Your task to perform on an android device: change keyboard looks Image 0: 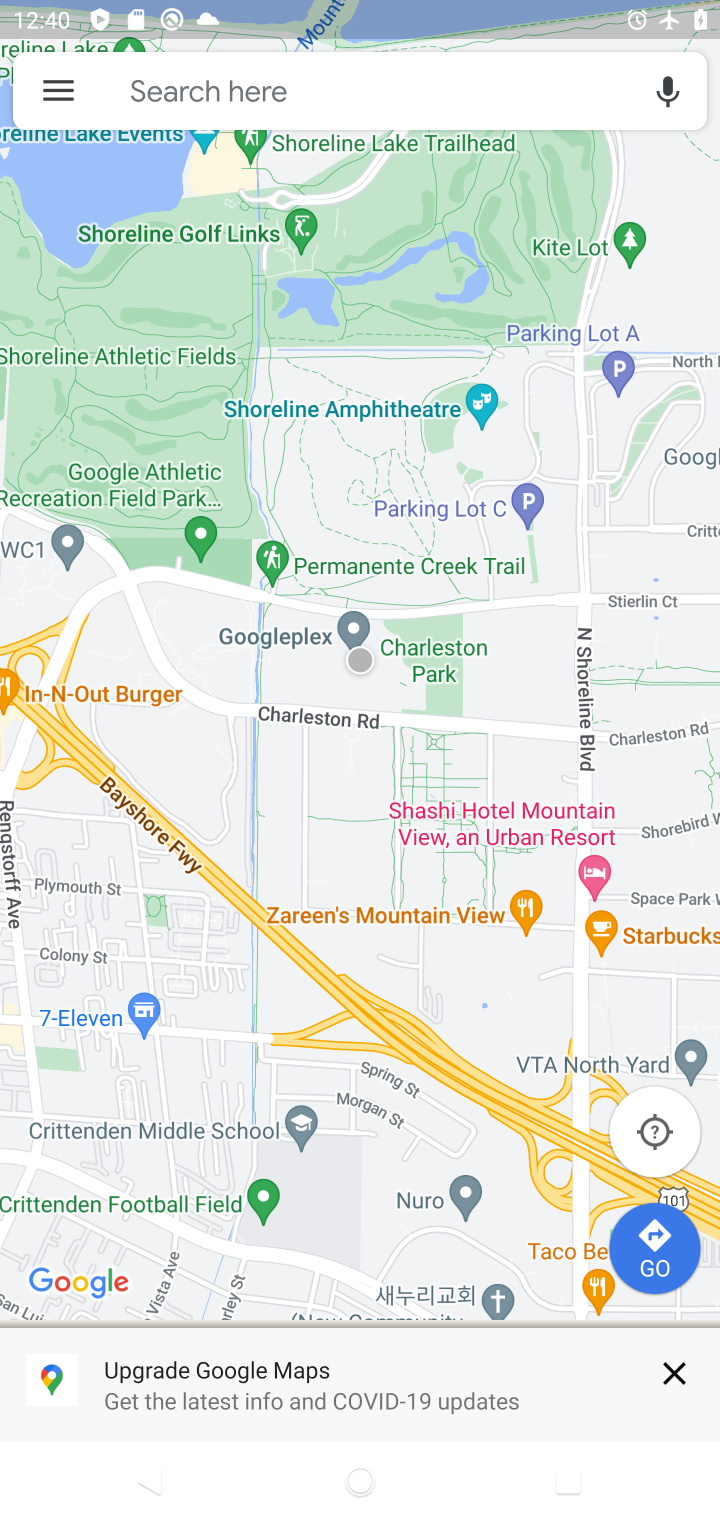
Step 0: press home button
Your task to perform on an android device: change keyboard looks Image 1: 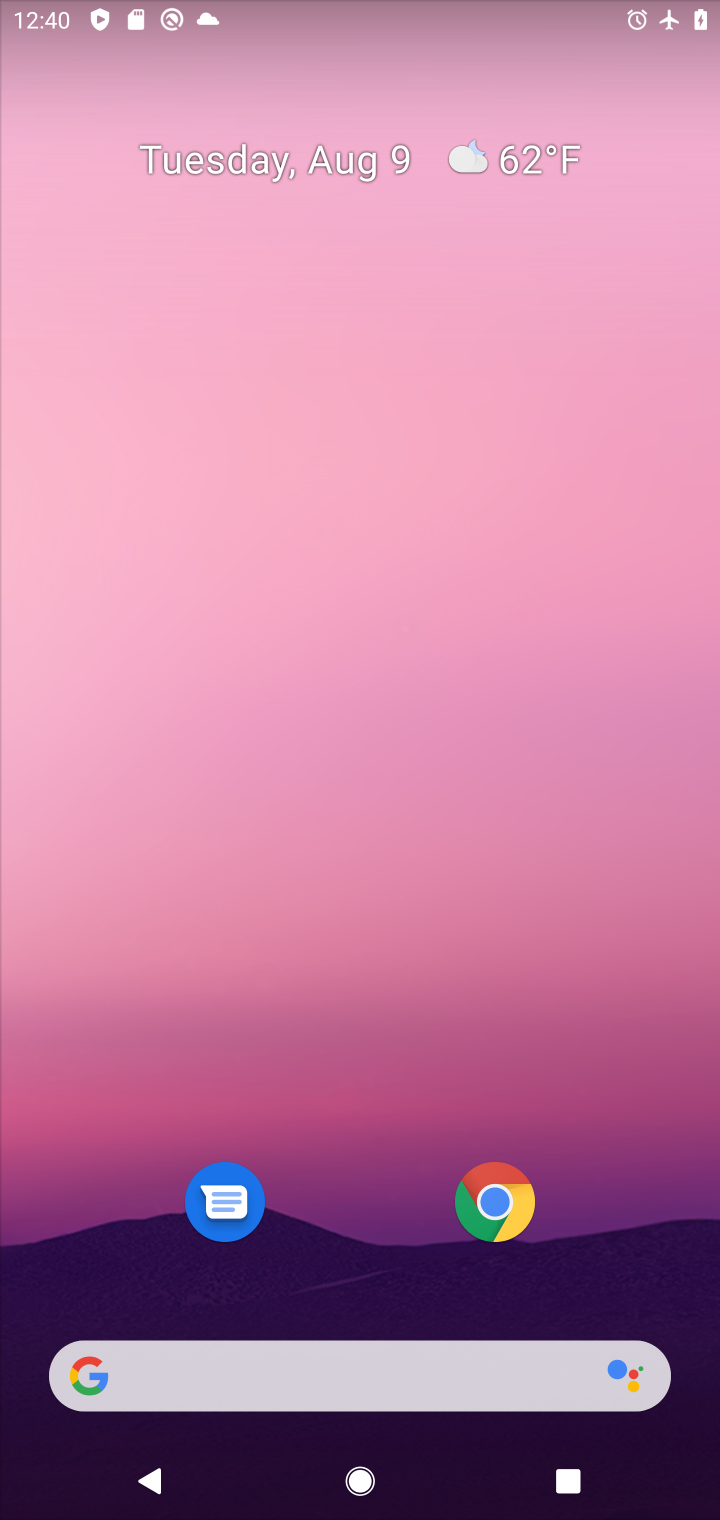
Step 1: drag from (334, 1266) to (510, 167)
Your task to perform on an android device: change keyboard looks Image 2: 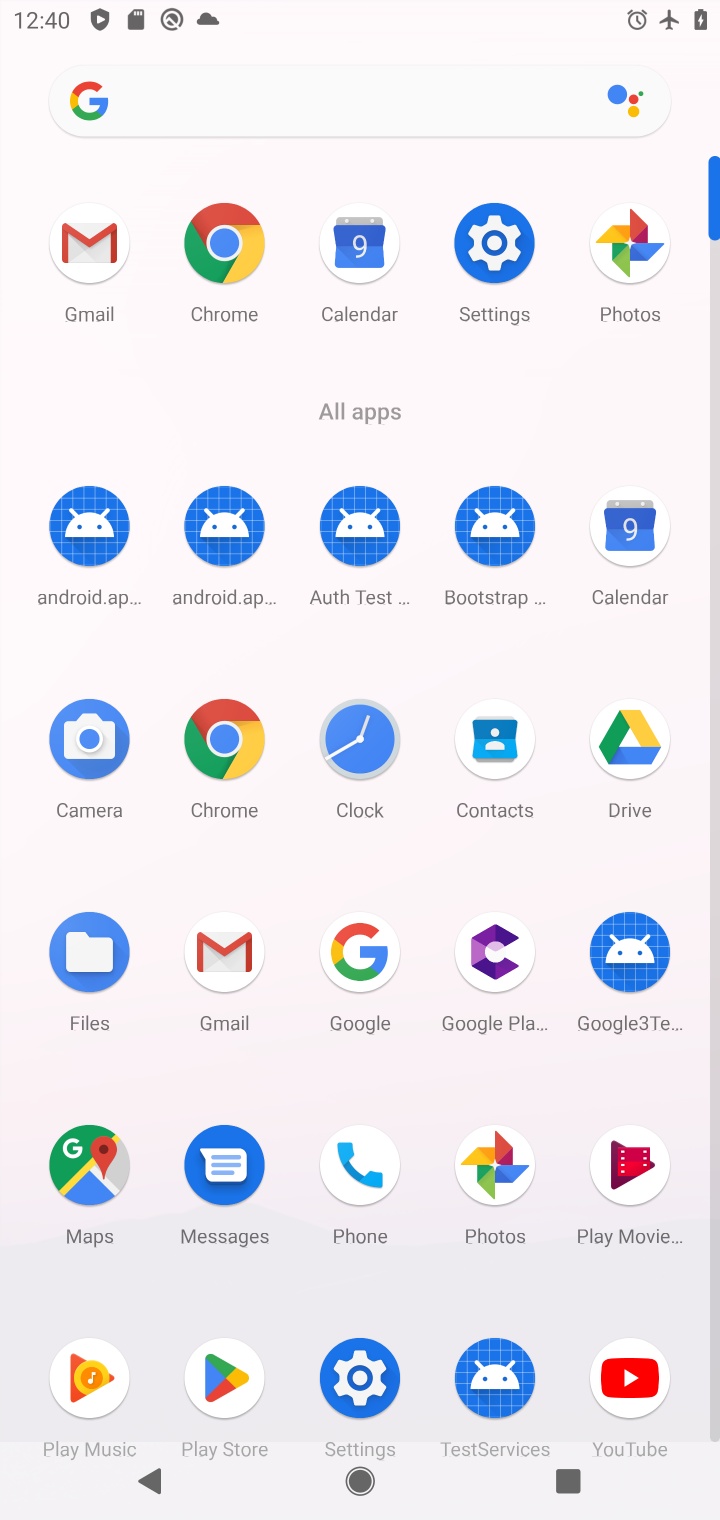
Step 2: click (480, 258)
Your task to perform on an android device: change keyboard looks Image 3: 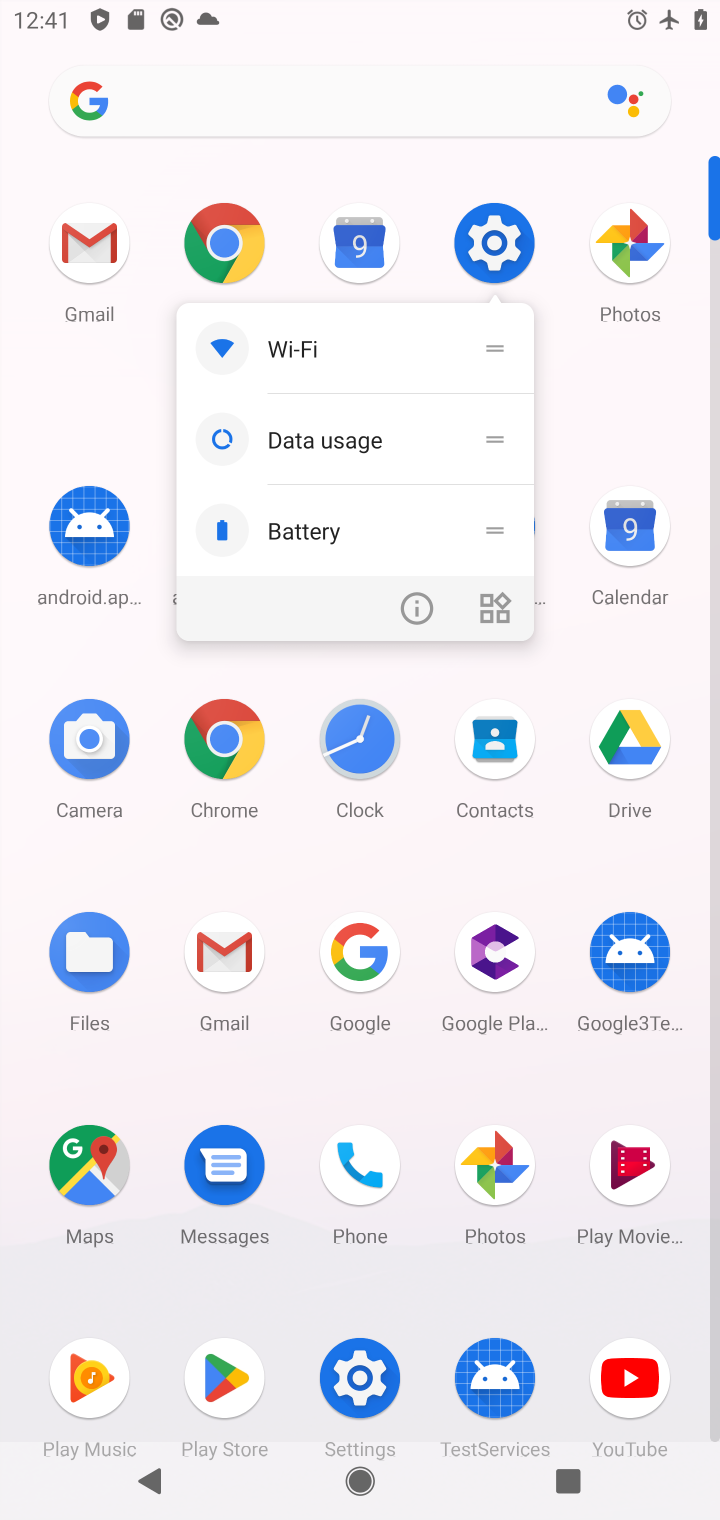
Step 3: click (480, 238)
Your task to perform on an android device: change keyboard looks Image 4: 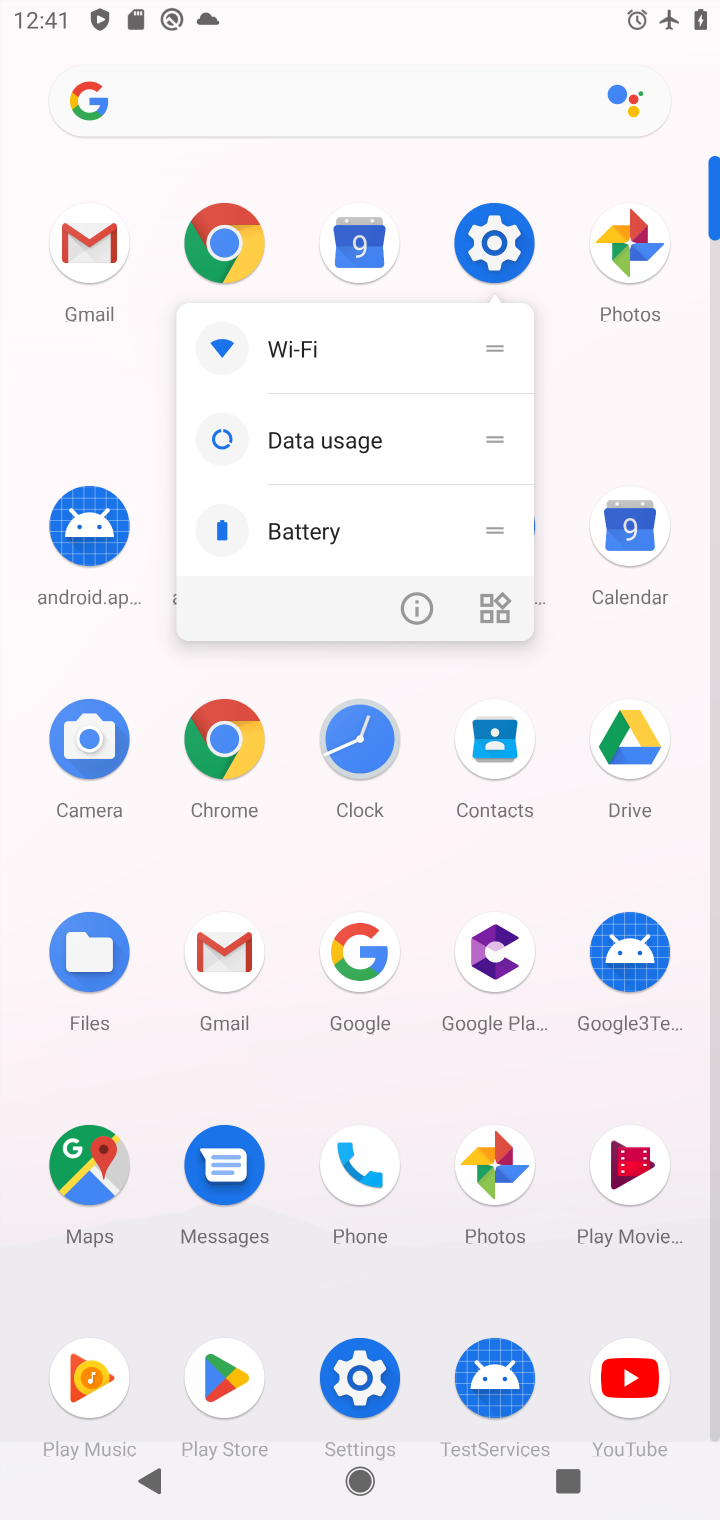
Step 4: click (484, 264)
Your task to perform on an android device: change keyboard looks Image 5: 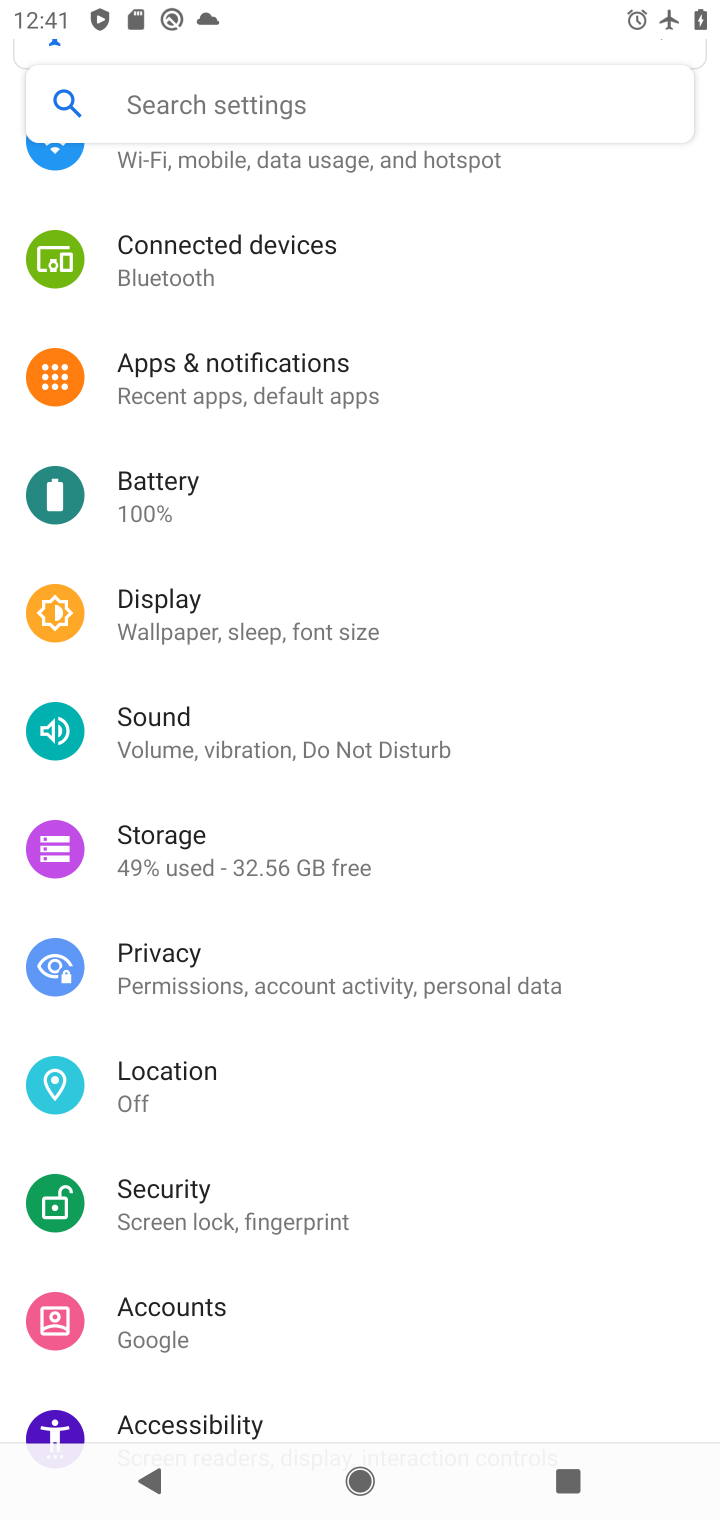
Step 5: drag from (285, 717) to (320, 588)
Your task to perform on an android device: change keyboard looks Image 6: 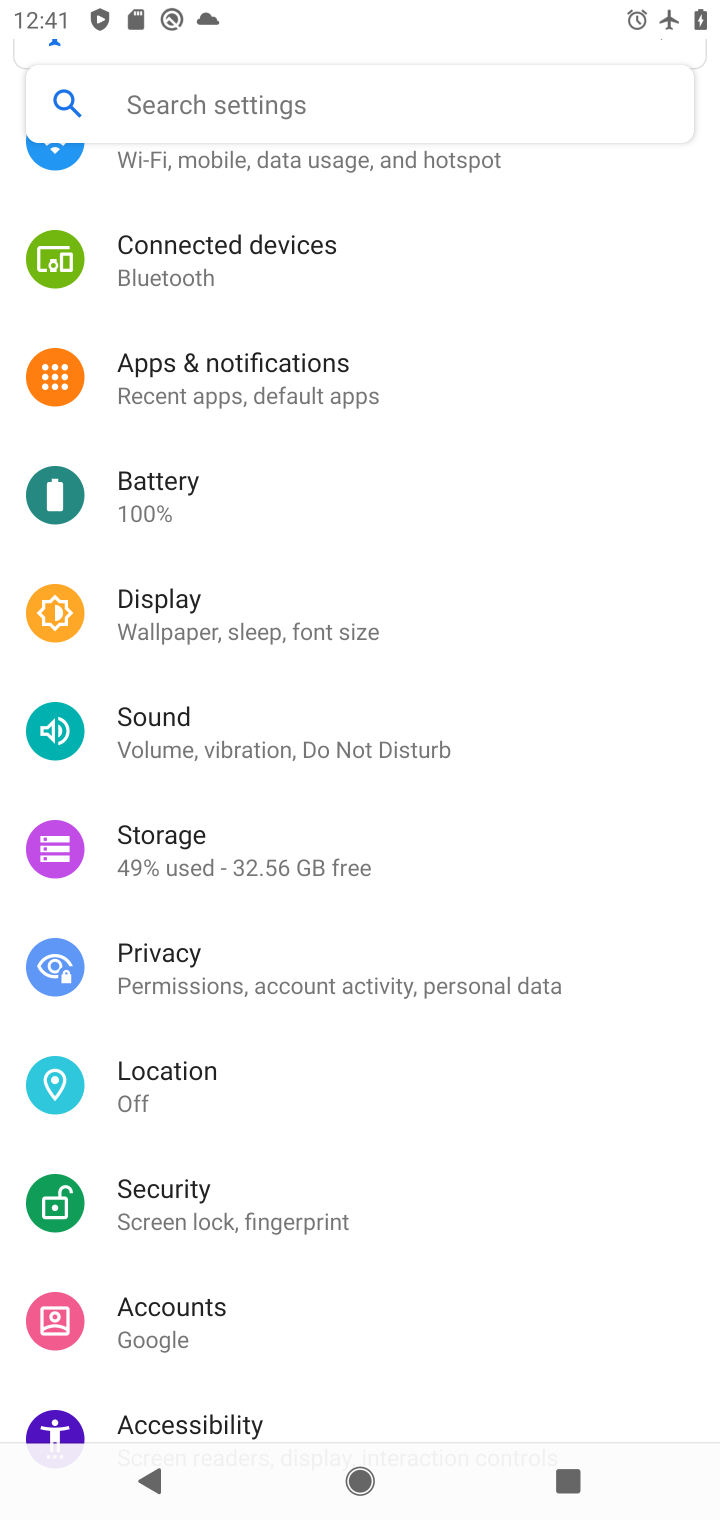
Step 6: click (273, 804)
Your task to perform on an android device: change keyboard looks Image 7: 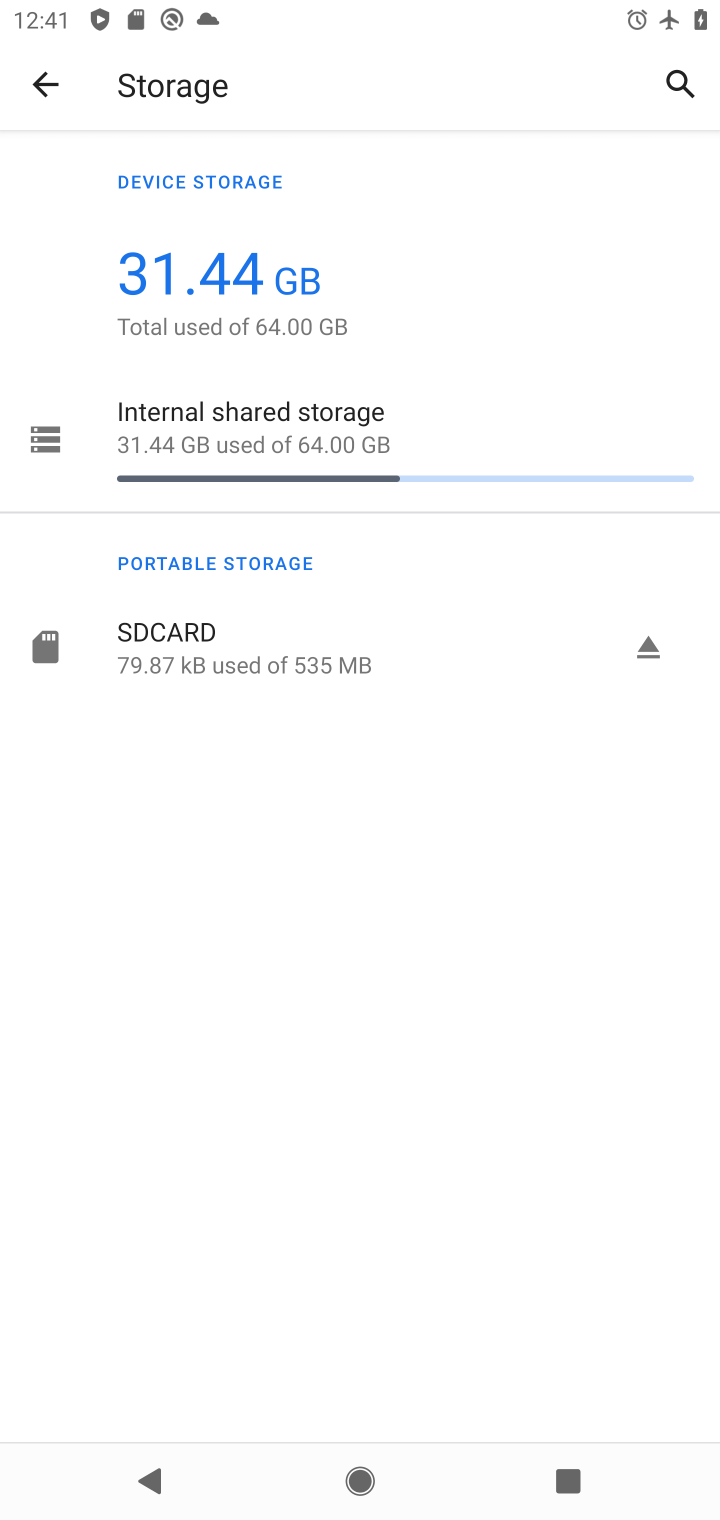
Step 7: click (44, 77)
Your task to perform on an android device: change keyboard looks Image 8: 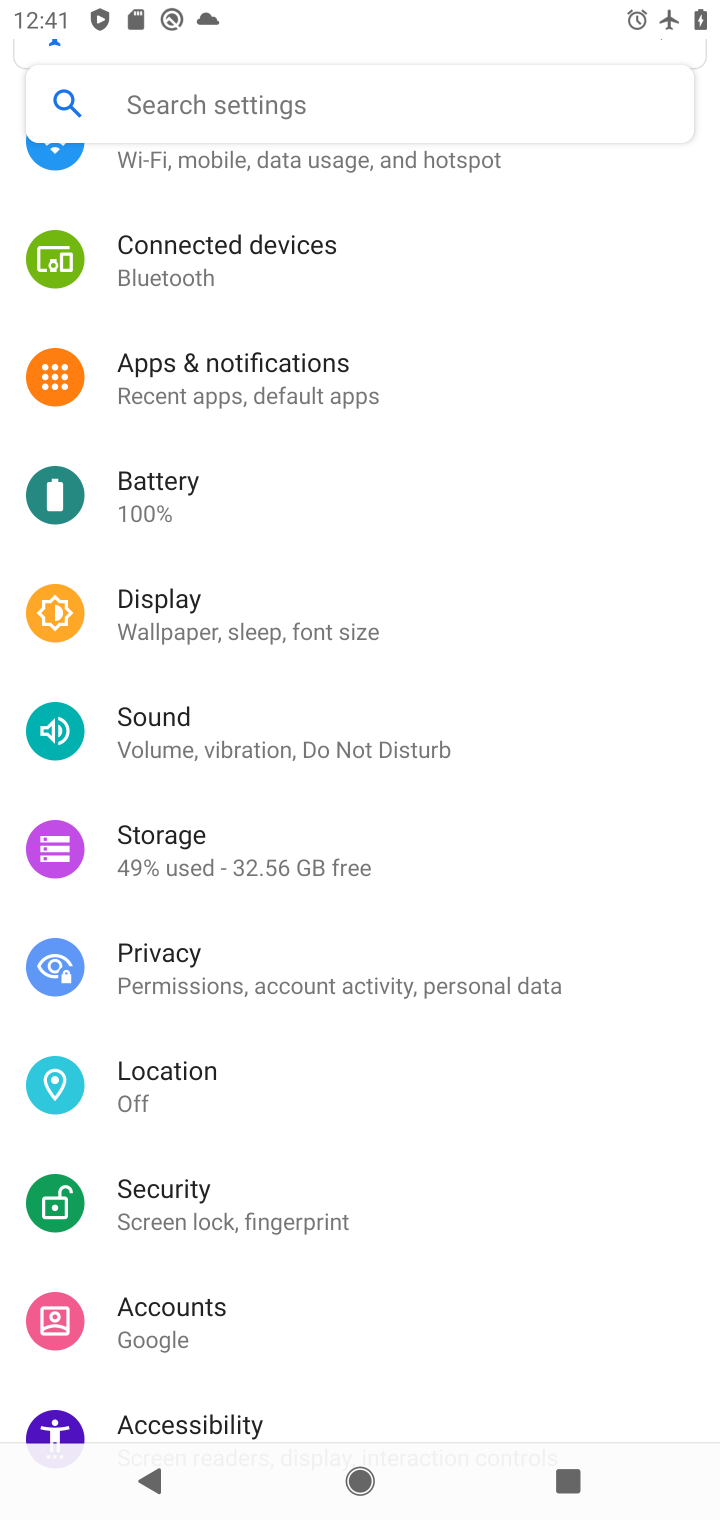
Step 8: drag from (251, 1216) to (271, 364)
Your task to perform on an android device: change keyboard looks Image 9: 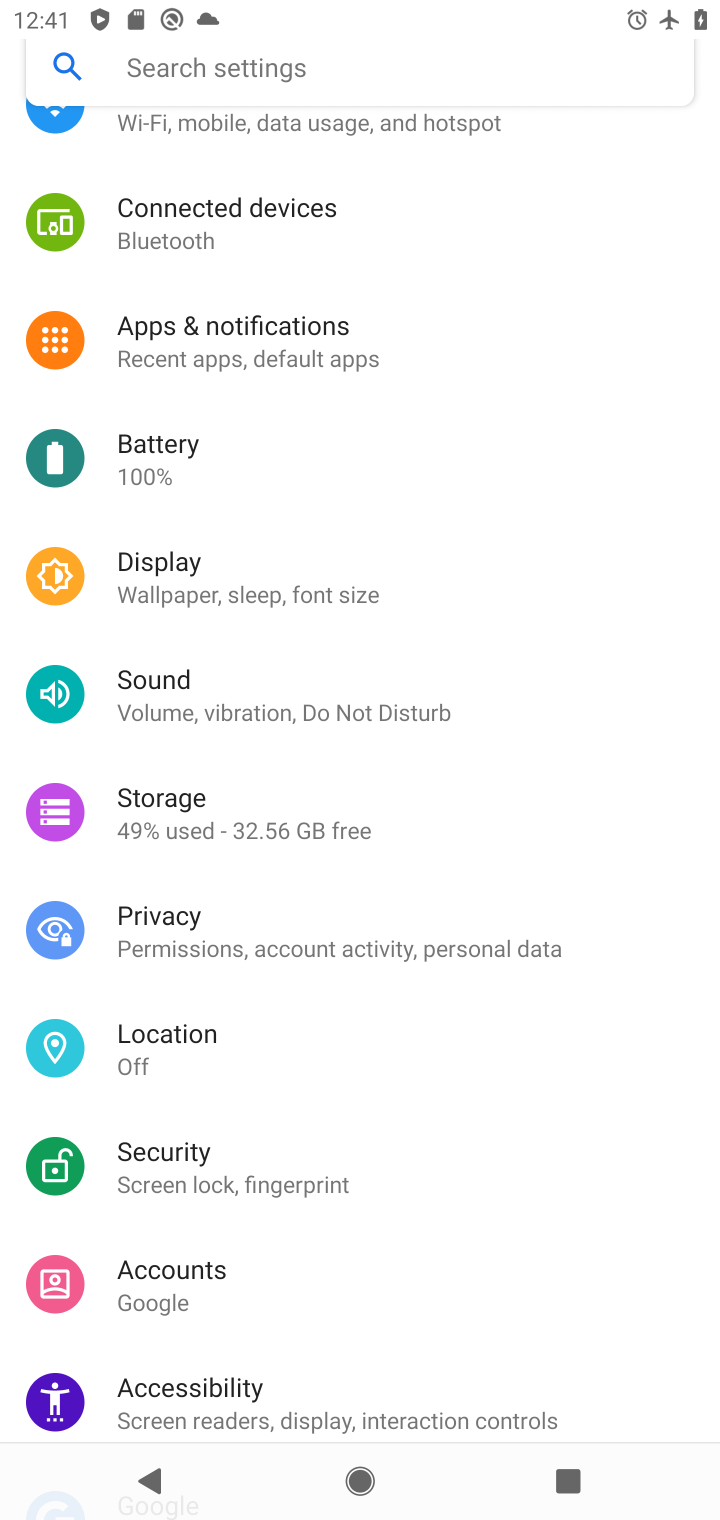
Step 9: drag from (175, 1205) to (200, 844)
Your task to perform on an android device: change keyboard looks Image 10: 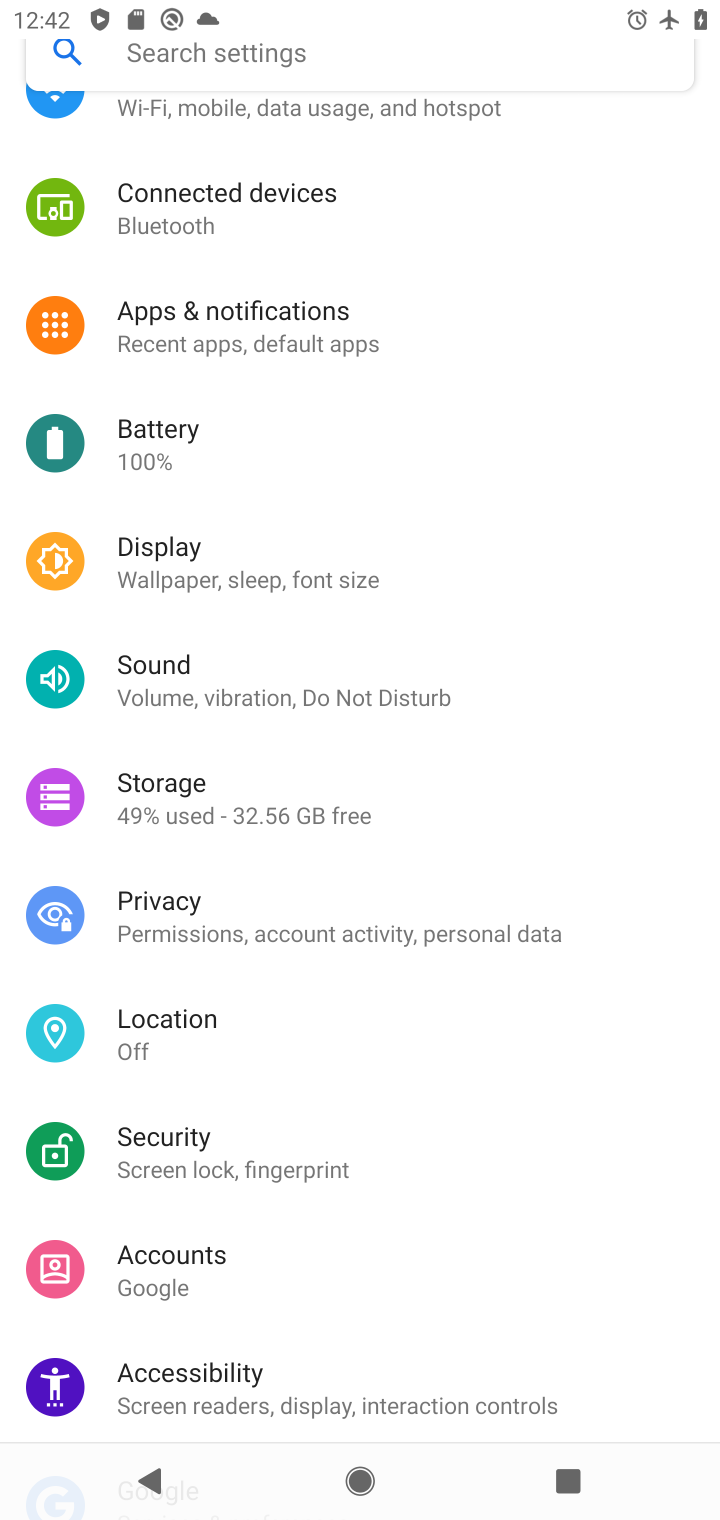
Step 10: click (253, 812)
Your task to perform on an android device: change keyboard looks Image 11: 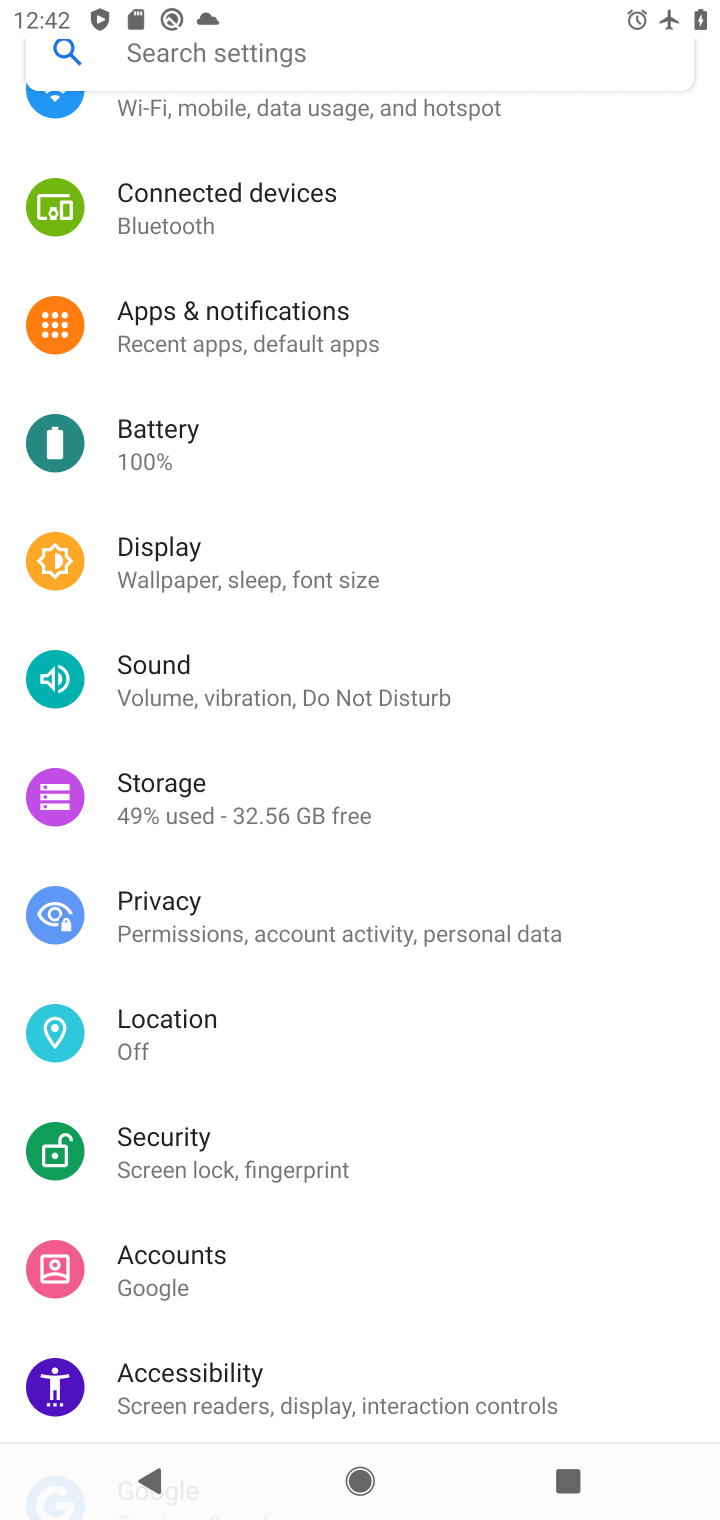
Step 11: click (370, 800)
Your task to perform on an android device: change keyboard looks Image 12: 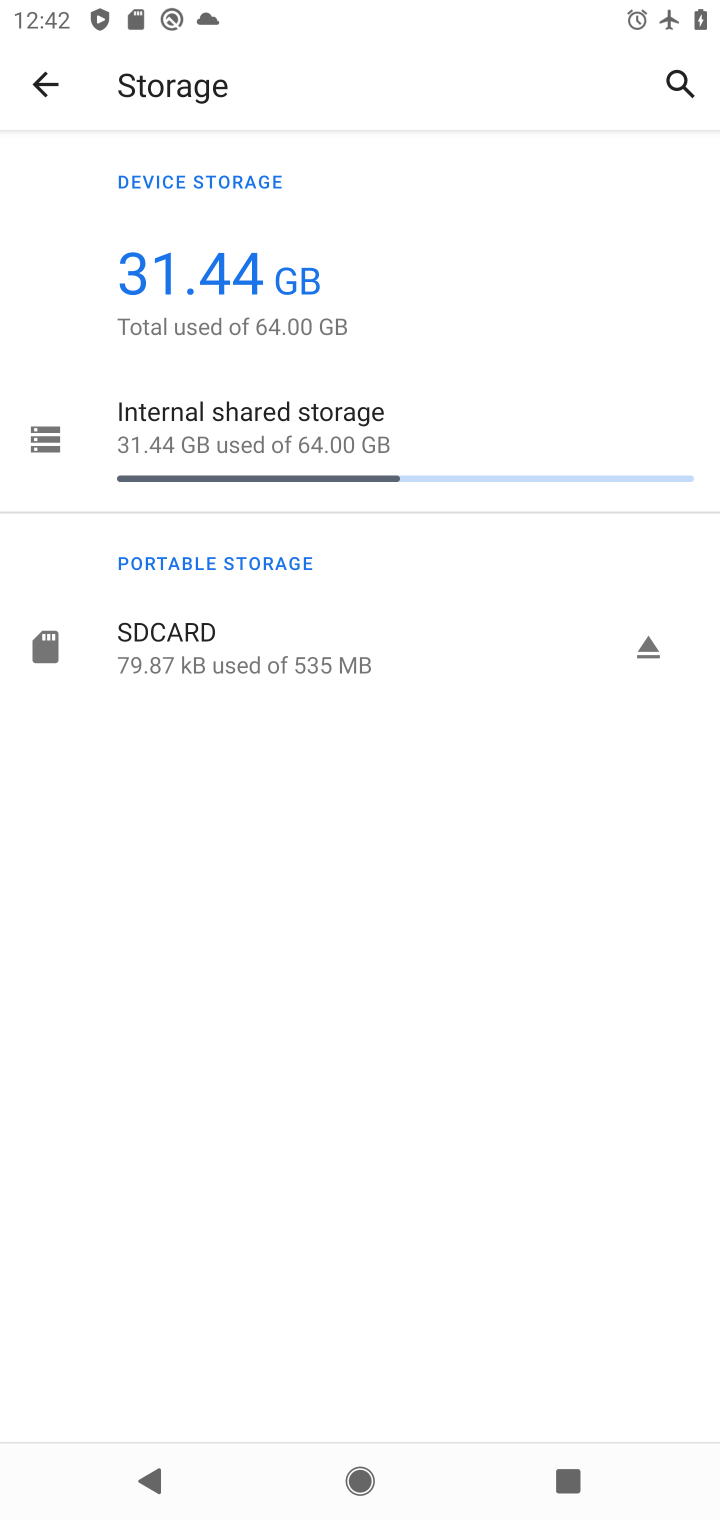
Step 12: click (35, 87)
Your task to perform on an android device: change keyboard looks Image 13: 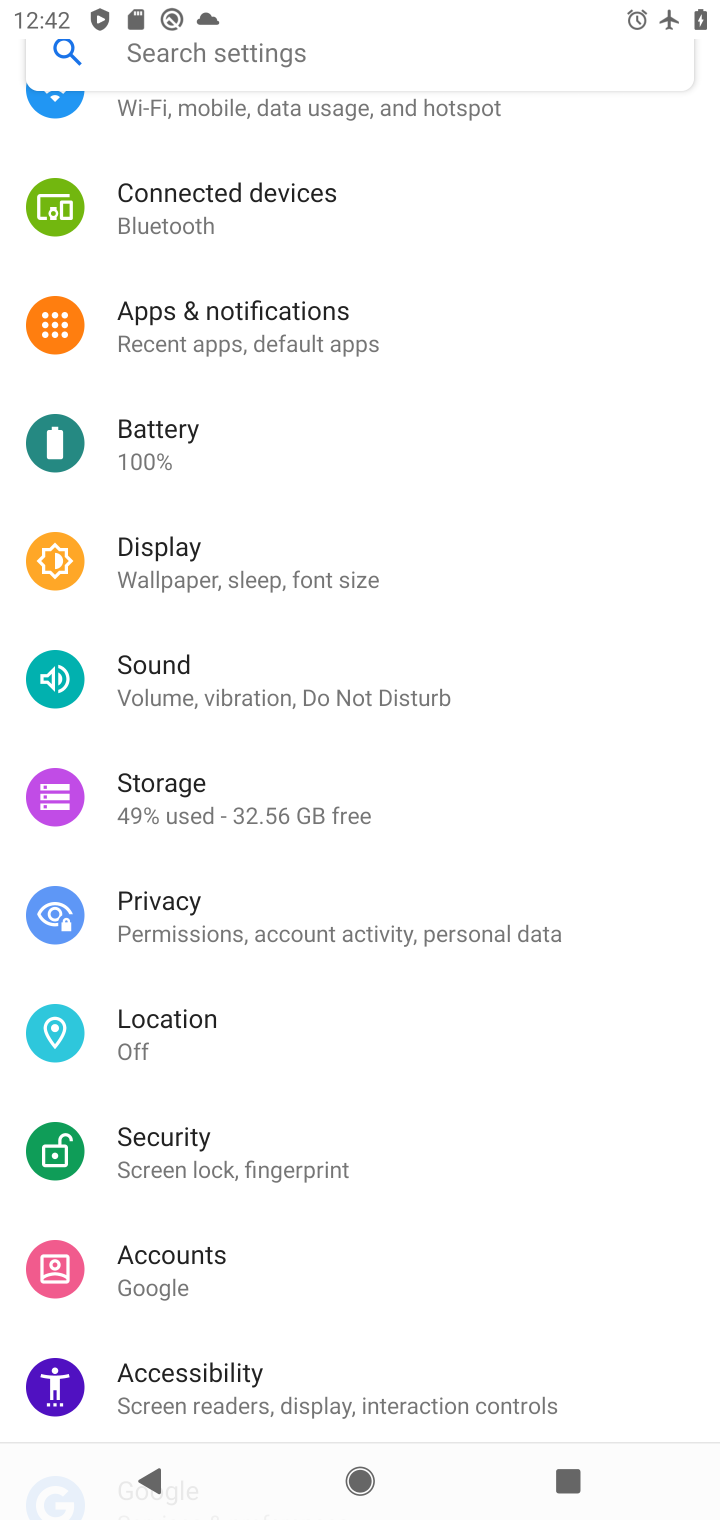
Step 13: drag from (254, 1218) to (378, 568)
Your task to perform on an android device: change keyboard looks Image 14: 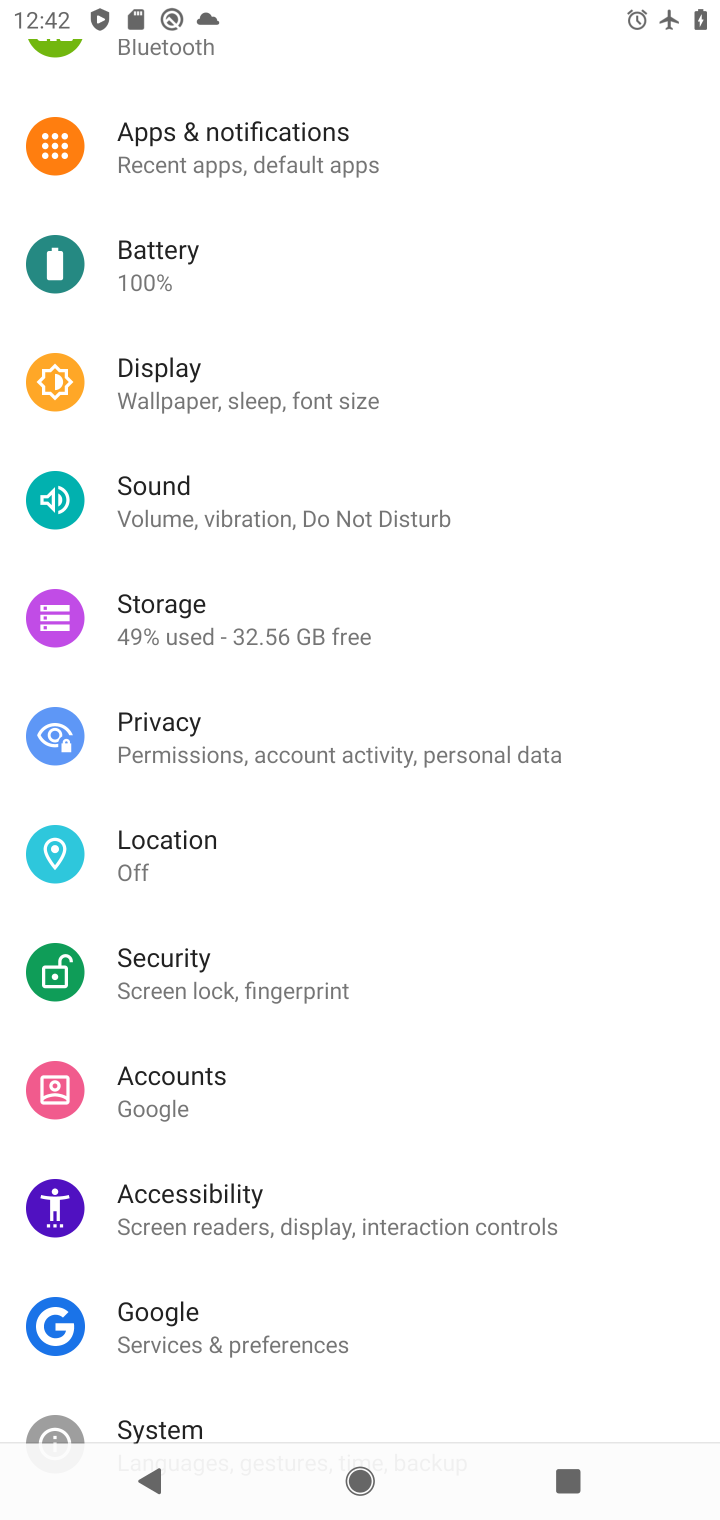
Step 14: click (101, 1440)
Your task to perform on an android device: change keyboard looks Image 15: 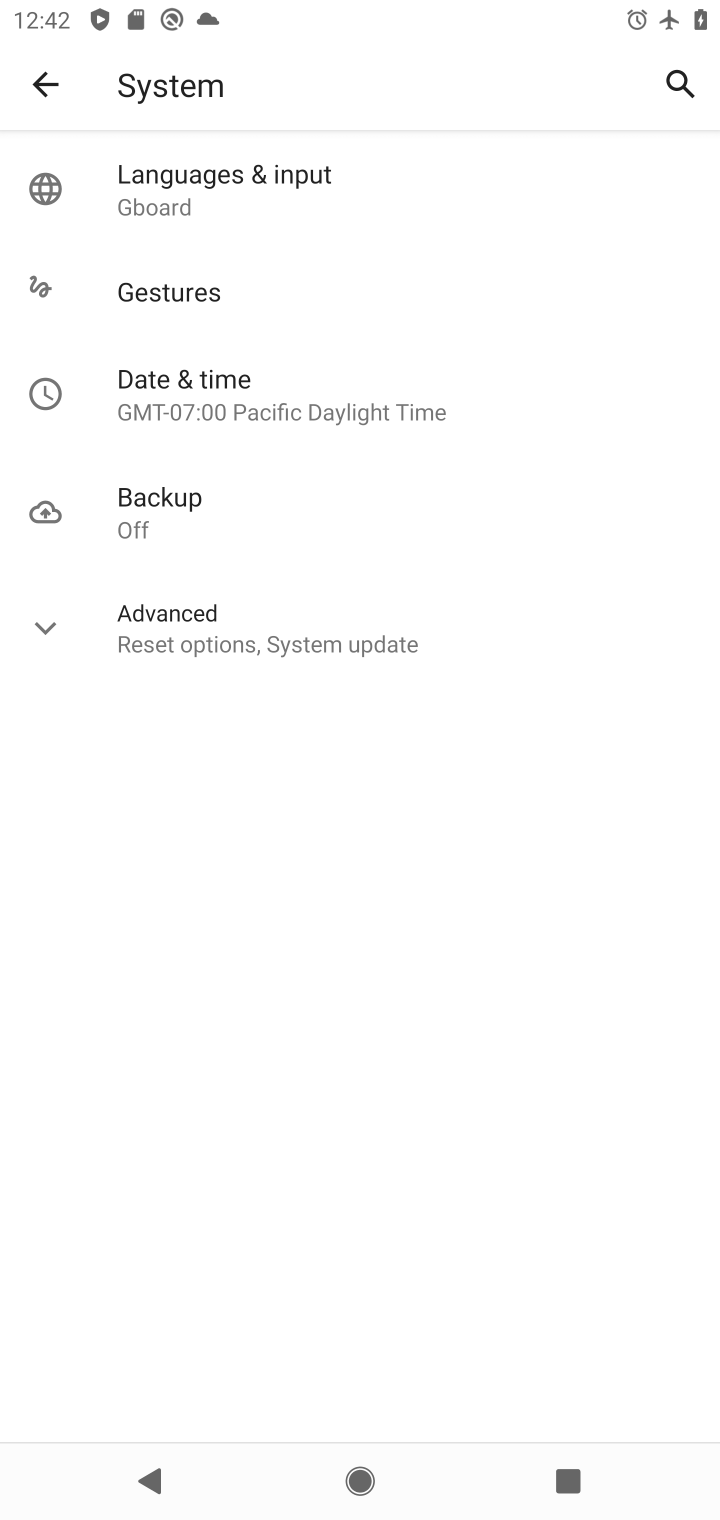
Step 15: click (197, 173)
Your task to perform on an android device: change keyboard looks Image 16: 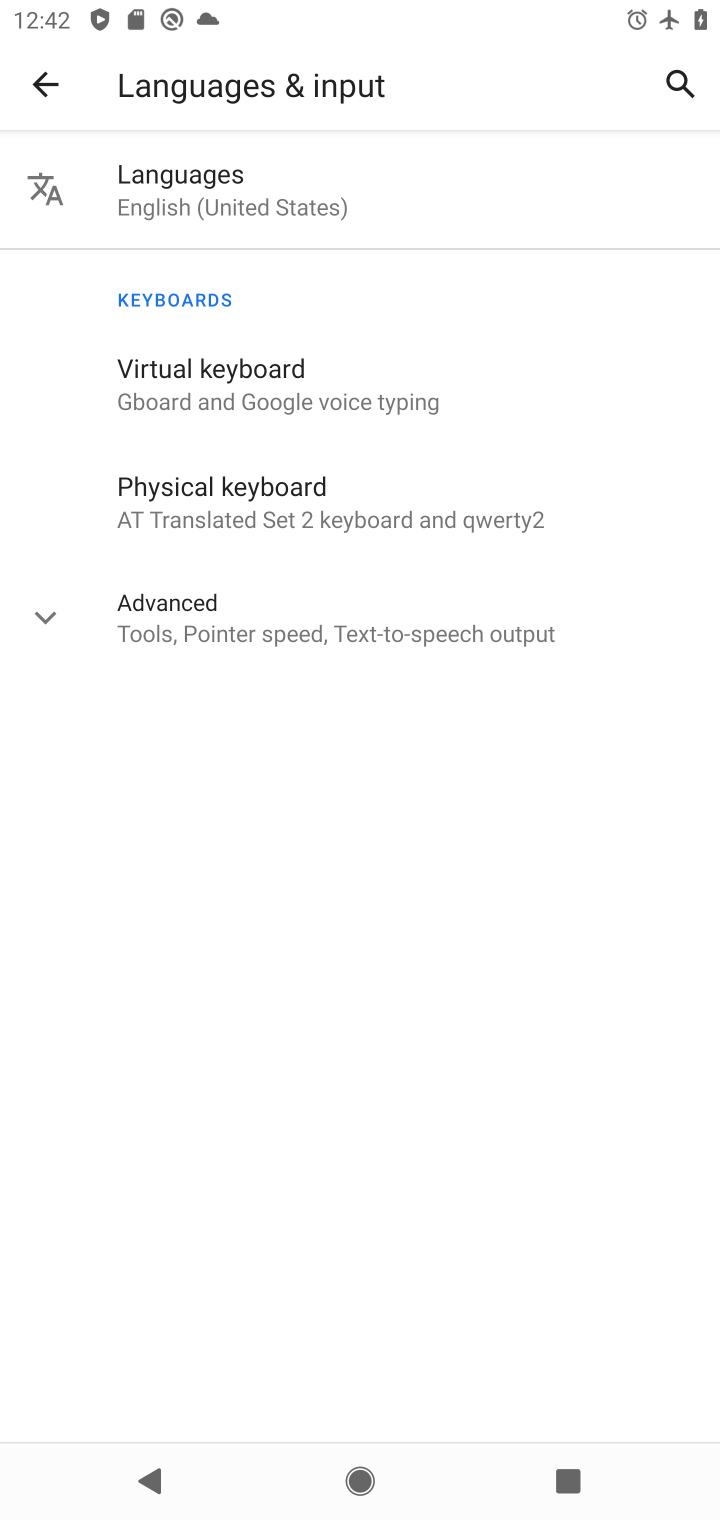
Step 16: click (183, 392)
Your task to perform on an android device: change keyboard looks Image 17: 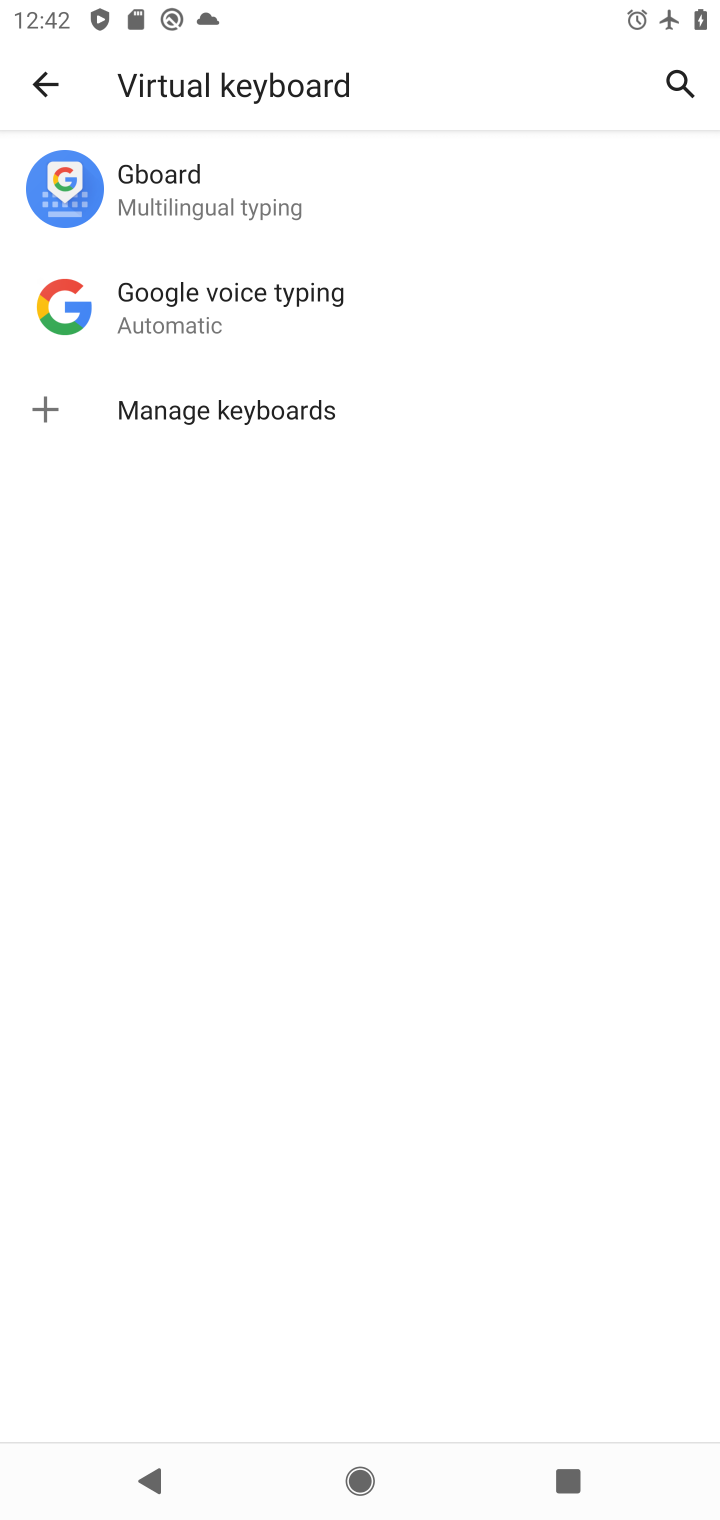
Step 17: click (193, 191)
Your task to perform on an android device: change keyboard looks Image 18: 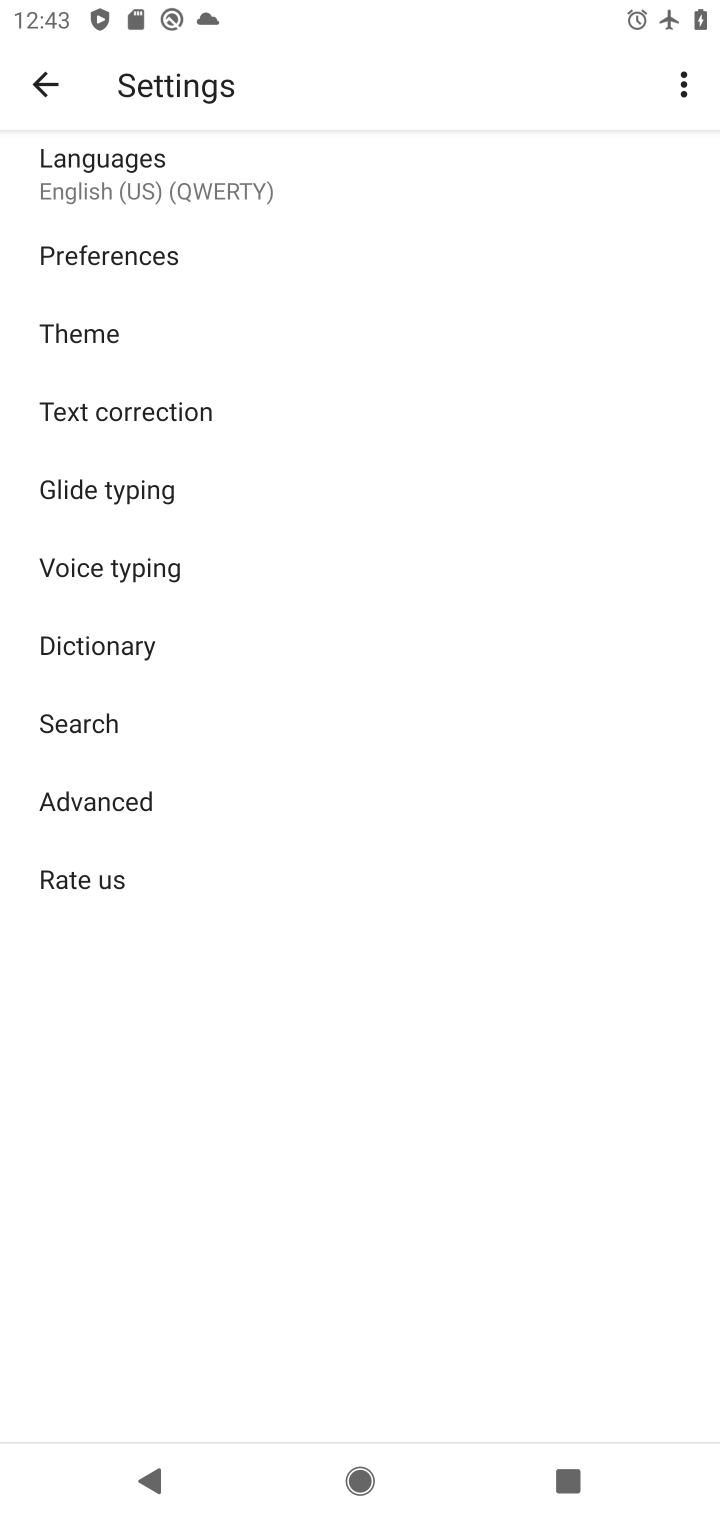
Step 18: click (102, 347)
Your task to perform on an android device: change keyboard looks Image 19: 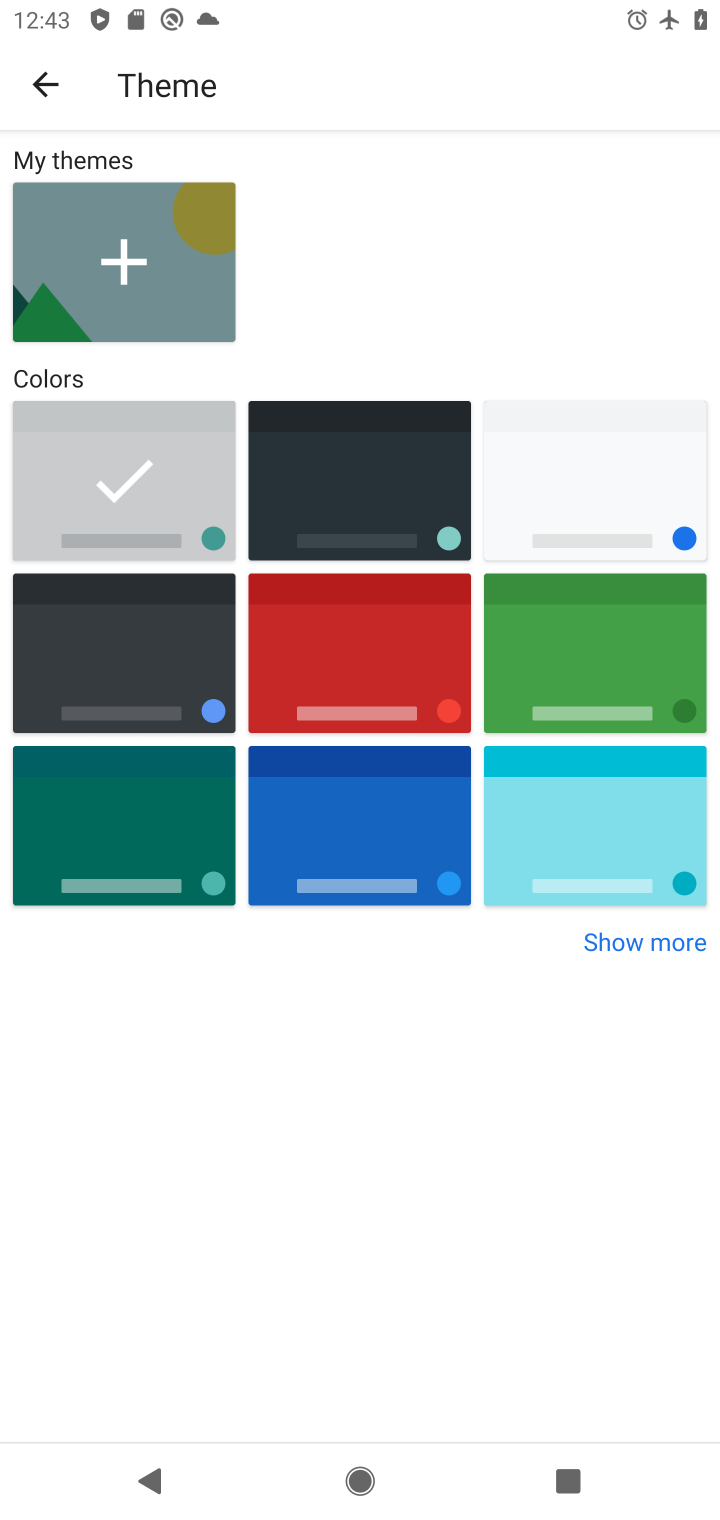
Step 19: click (343, 462)
Your task to perform on an android device: change keyboard looks Image 20: 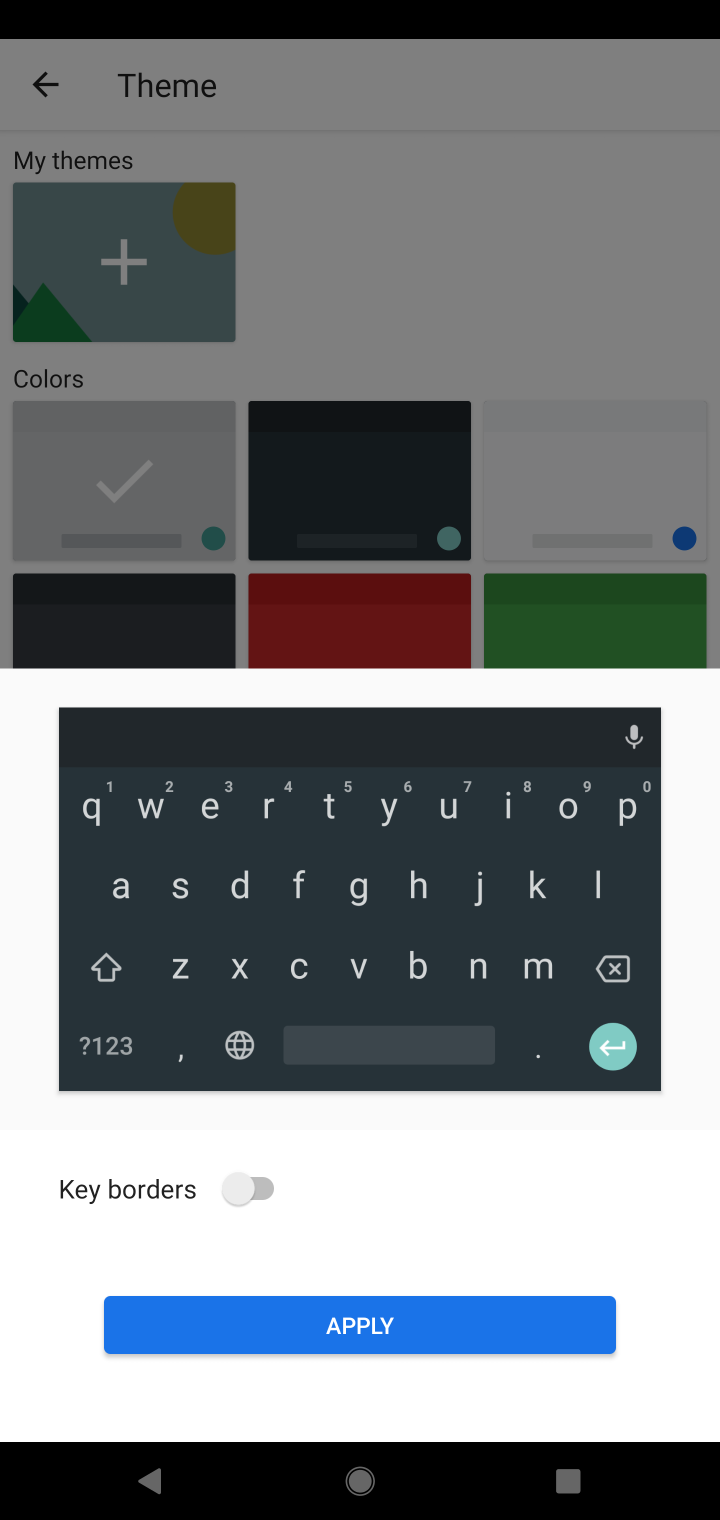
Step 20: click (346, 1323)
Your task to perform on an android device: change keyboard looks Image 21: 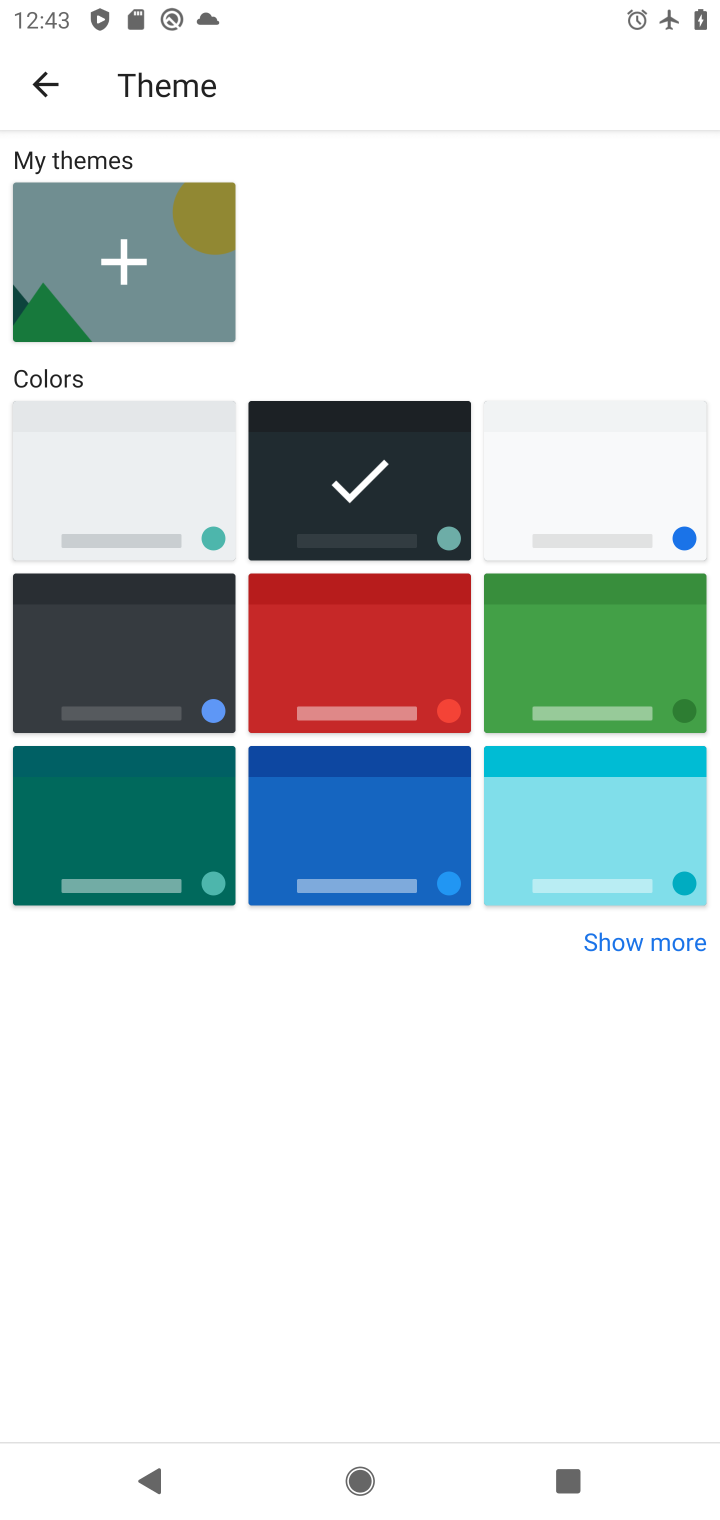
Step 21: task complete